Your task to perform on an android device: Open settings on Google Maps Image 0: 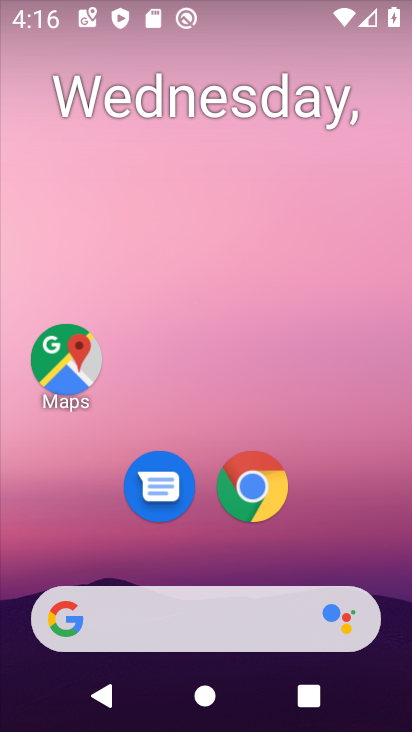
Step 0: drag from (203, 623) to (204, 157)
Your task to perform on an android device: Open settings on Google Maps Image 1: 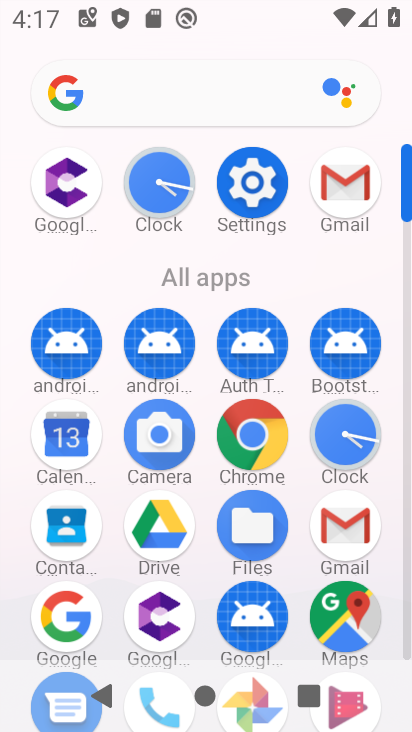
Step 1: click (358, 635)
Your task to perform on an android device: Open settings on Google Maps Image 2: 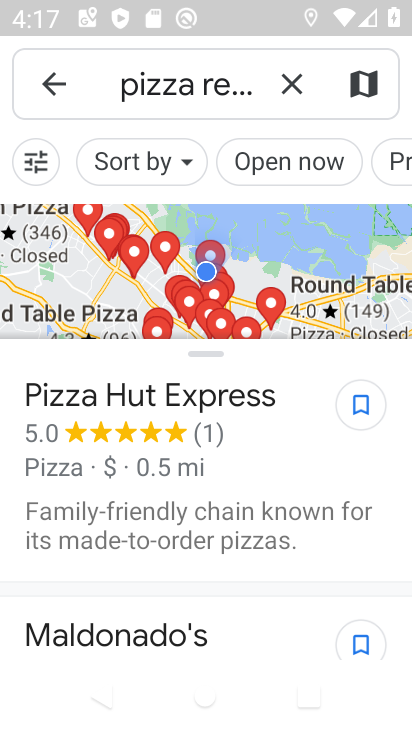
Step 2: click (55, 89)
Your task to perform on an android device: Open settings on Google Maps Image 3: 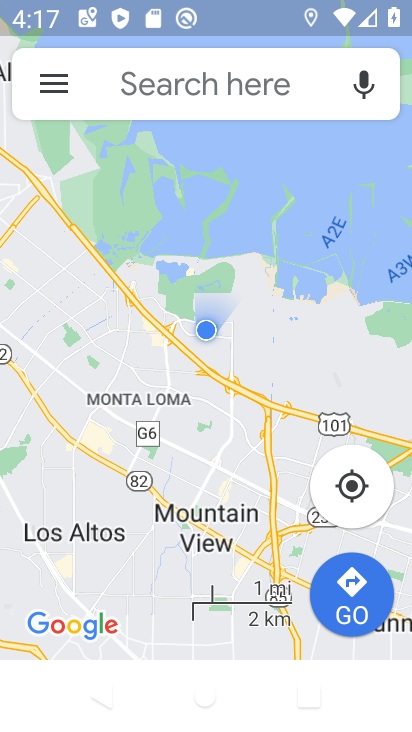
Step 3: click (55, 89)
Your task to perform on an android device: Open settings on Google Maps Image 4: 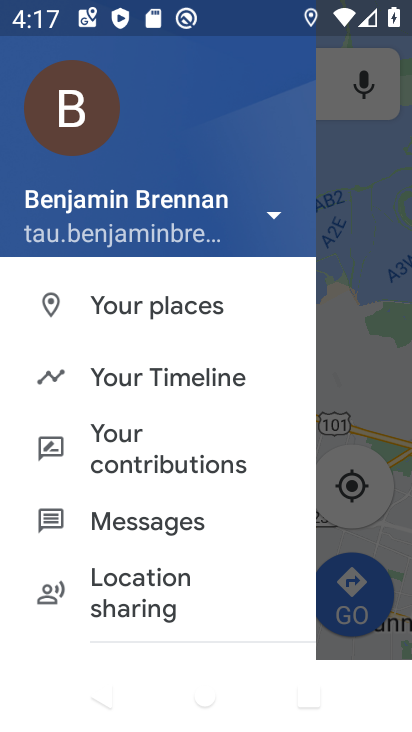
Step 4: drag from (124, 475) to (218, 60)
Your task to perform on an android device: Open settings on Google Maps Image 5: 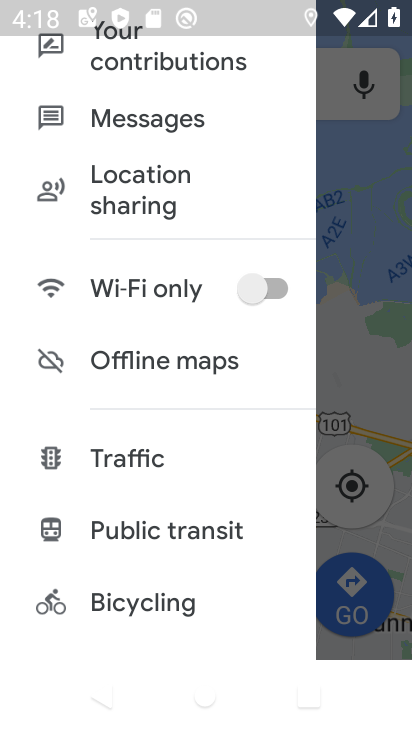
Step 5: drag from (137, 534) to (199, 3)
Your task to perform on an android device: Open settings on Google Maps Image 6: 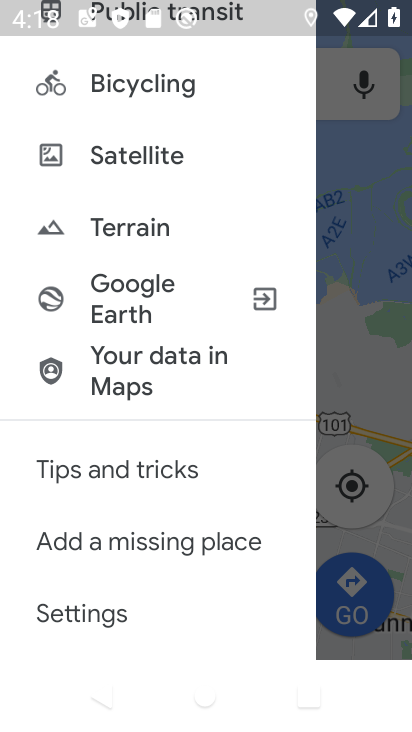
Step 6: click (90, 629)
Your task to perform on an android device: Open settings on Google Maps Image 7: 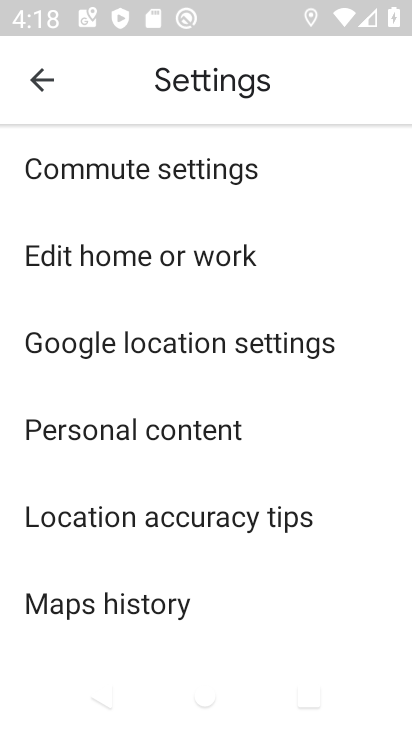
Step 7: task complete